Your task to perform on an android device: change alarm snooze length Image 0: 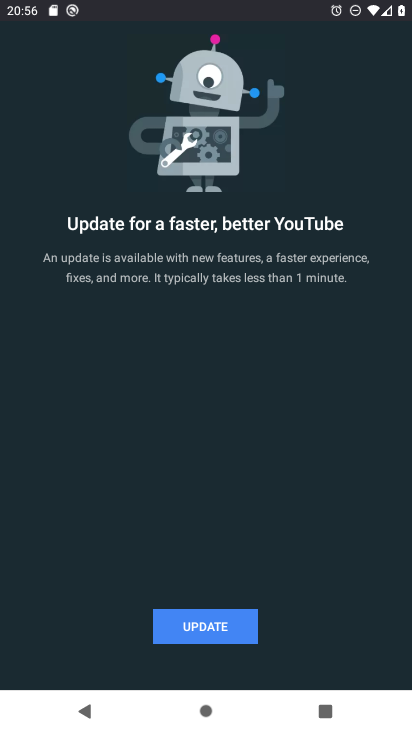
Step 0: press home button
Your task to perform on an android device: change alarm snooze length Image 1: 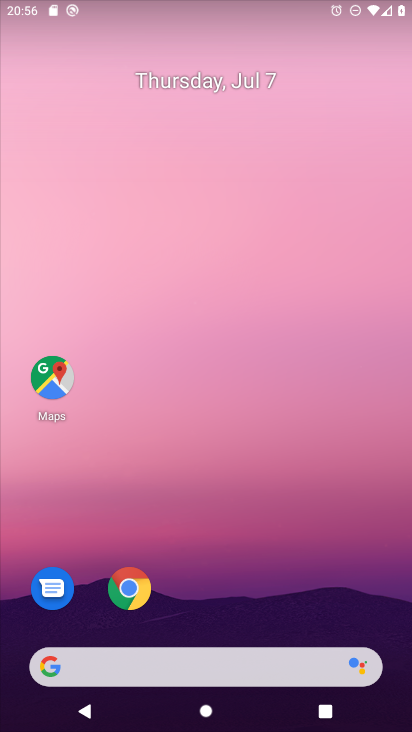
Step 1: drag from (229, 597) to (206, 246)
Your task to perform on an android device: change alarm snooze length Image 2: 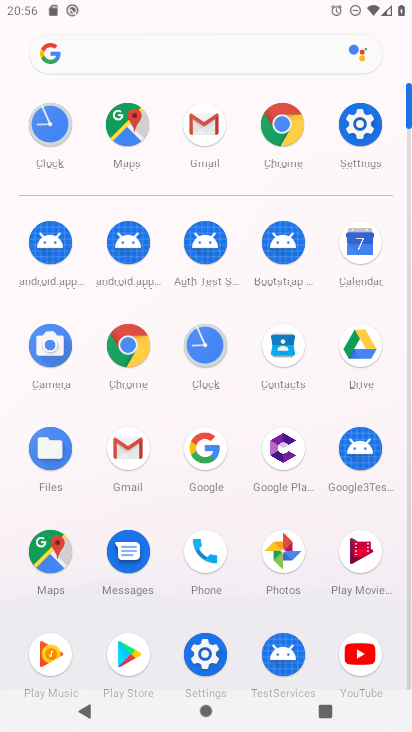
Step 2: click (205, 119)
Your task to perform on an android device: change alarm snooze length Image 3: 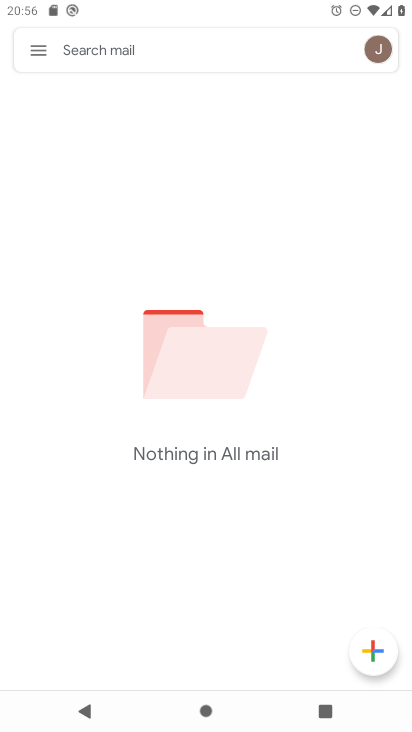
Step 3: click (36, 52)
Your task to perform on an android device: change alarm snooze length Image 4: 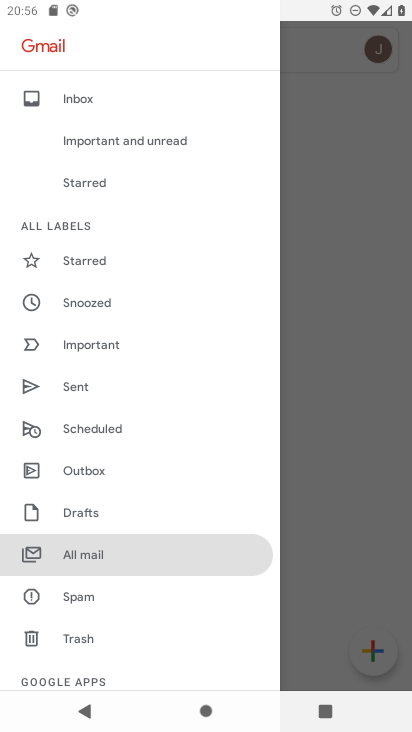
Step 4: click (95, 300)
Your task to perform on an android device: change alarm snooze length Image 5: 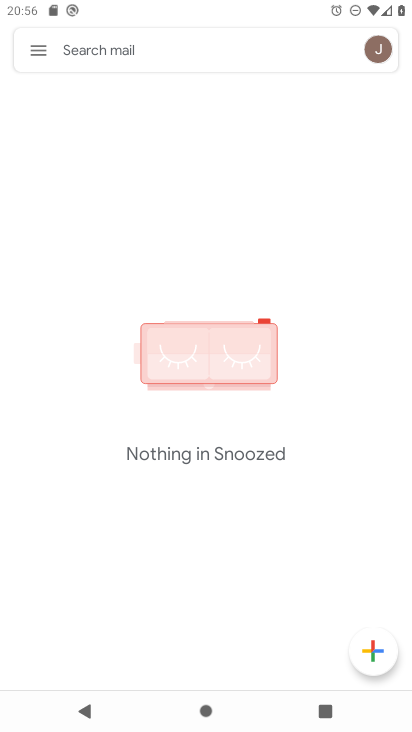
Step 5: task complete